Your task to perform on an android device: Add "duracell triple a" to the cart on walmart.com Image 0: 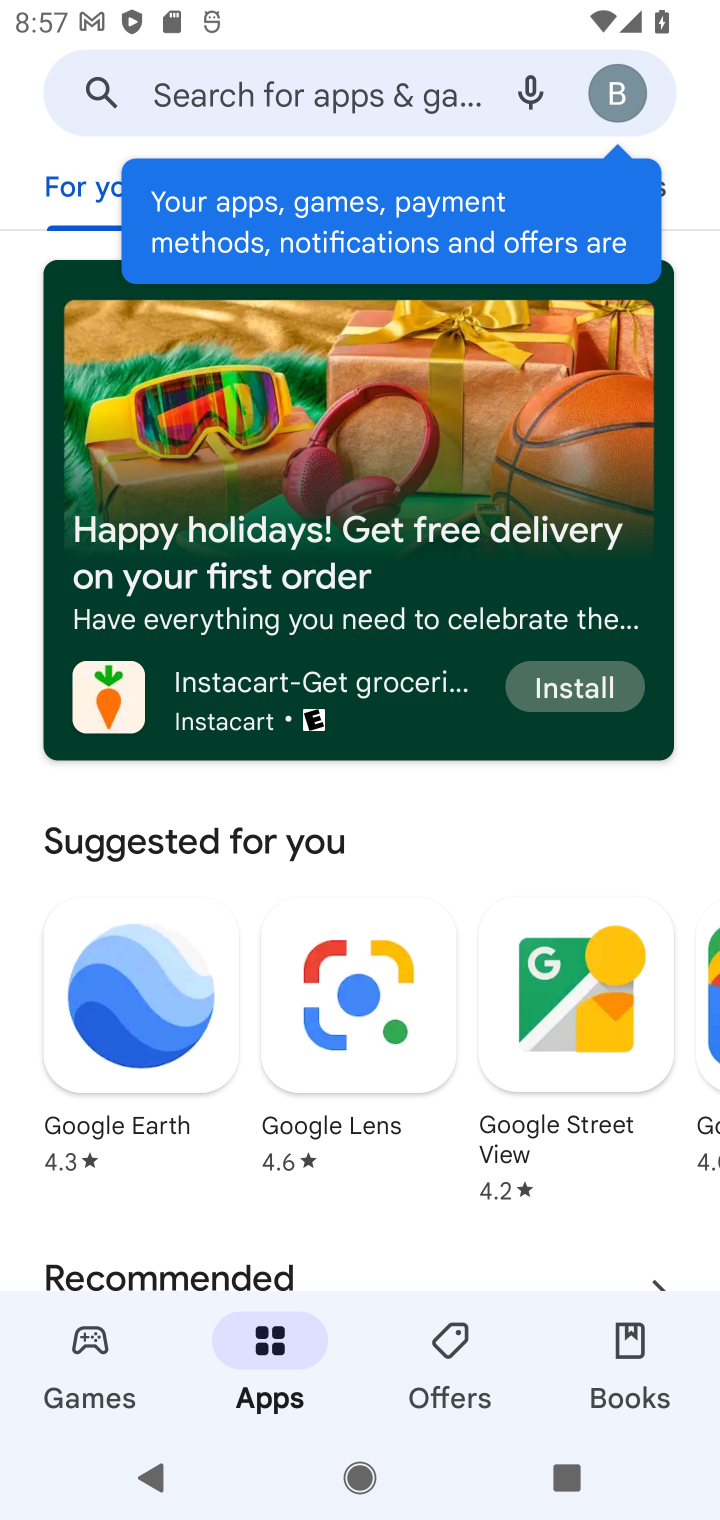
Step 0: press home button
Your task to perform on an android device: Add "duracell triple a" to the cart on walmart.com Image 1: 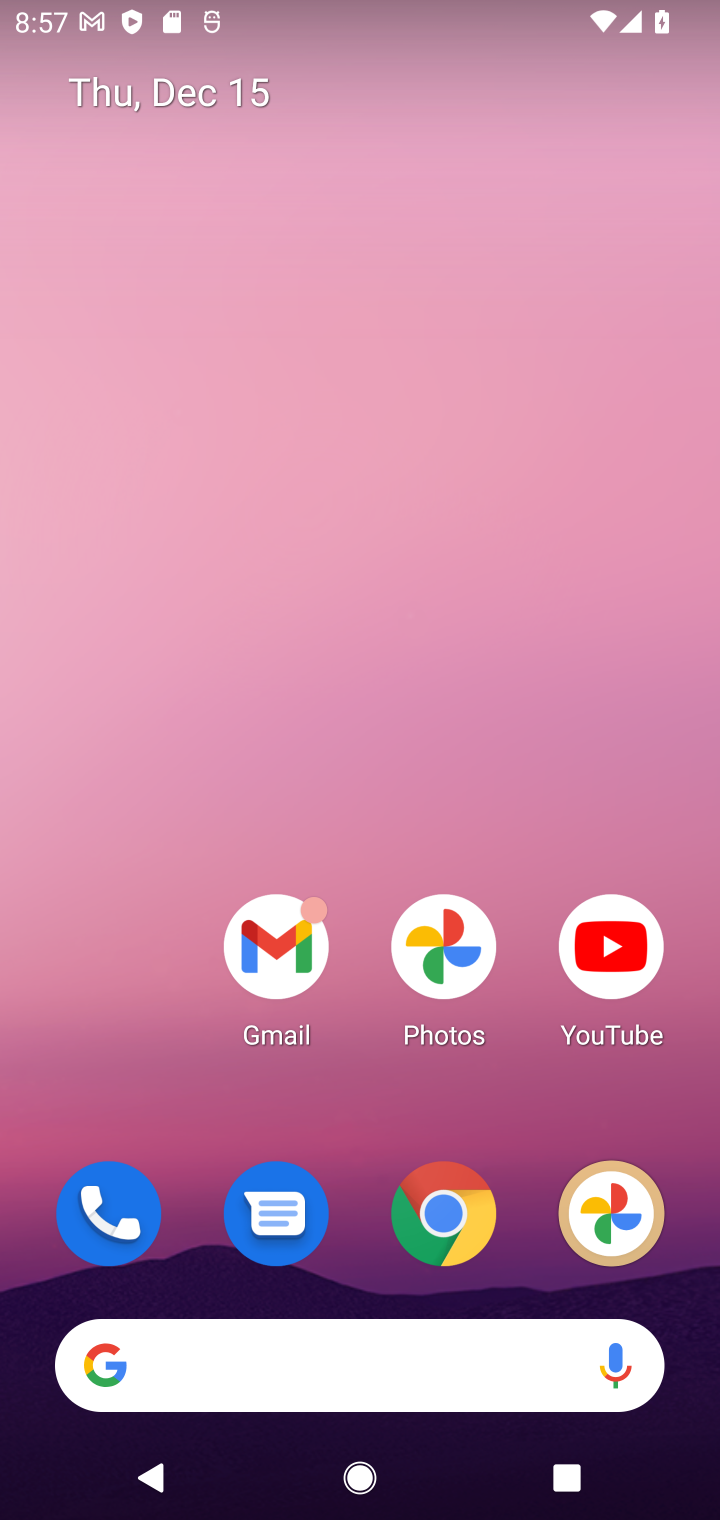
Step 1: drag from (342, 1339) to (441, 485)
Your task to perform on an android device: Add "duracell triple a" to the cart on walmart.com Image 2: 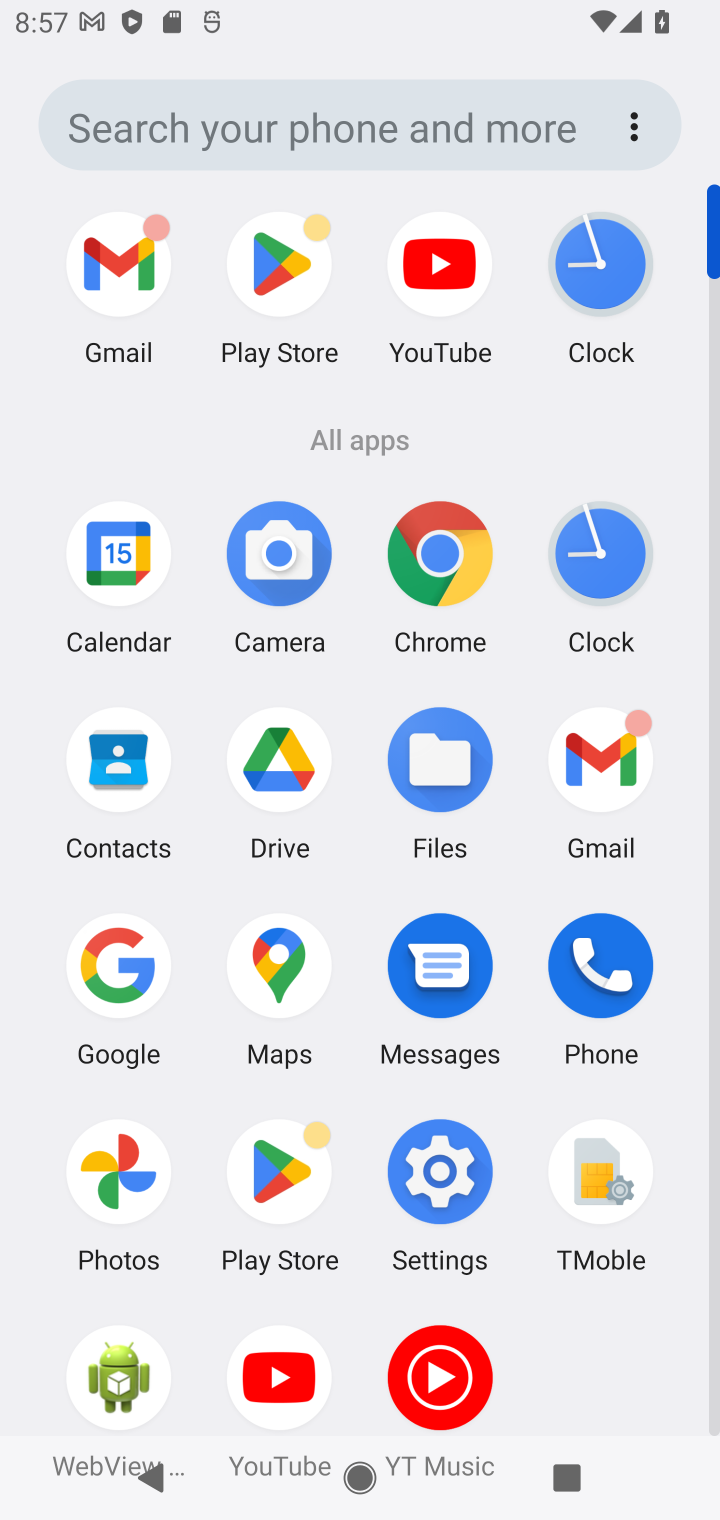
Step 2: click (114, 967)
Your task to perform on an android device: Add "duracell triple a" to the cart on walmart.com Image 3: 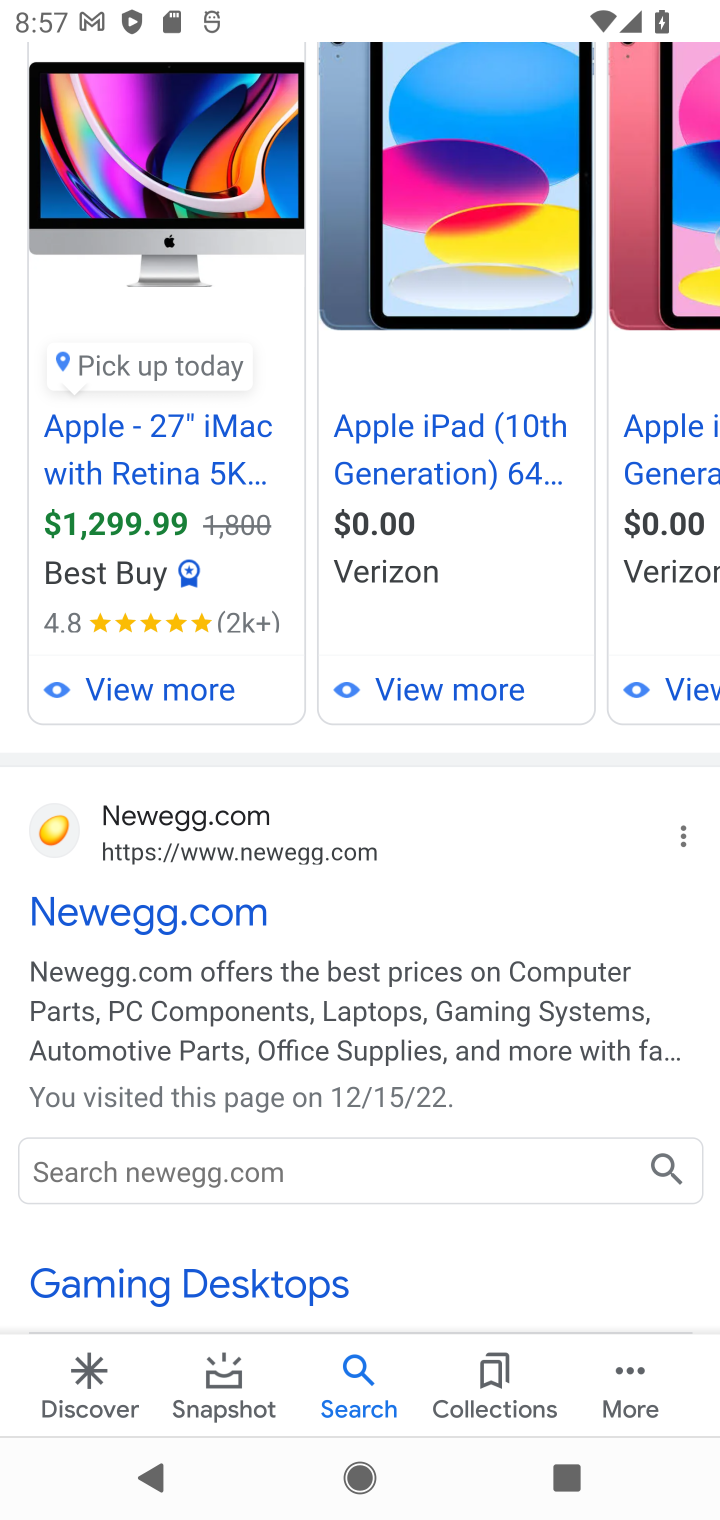
Step 3: drag from (315, 125) to (308, 1018)
Your task to perform on an android device: Add "duracell triple a" to the cart on walmart.com Image 4: 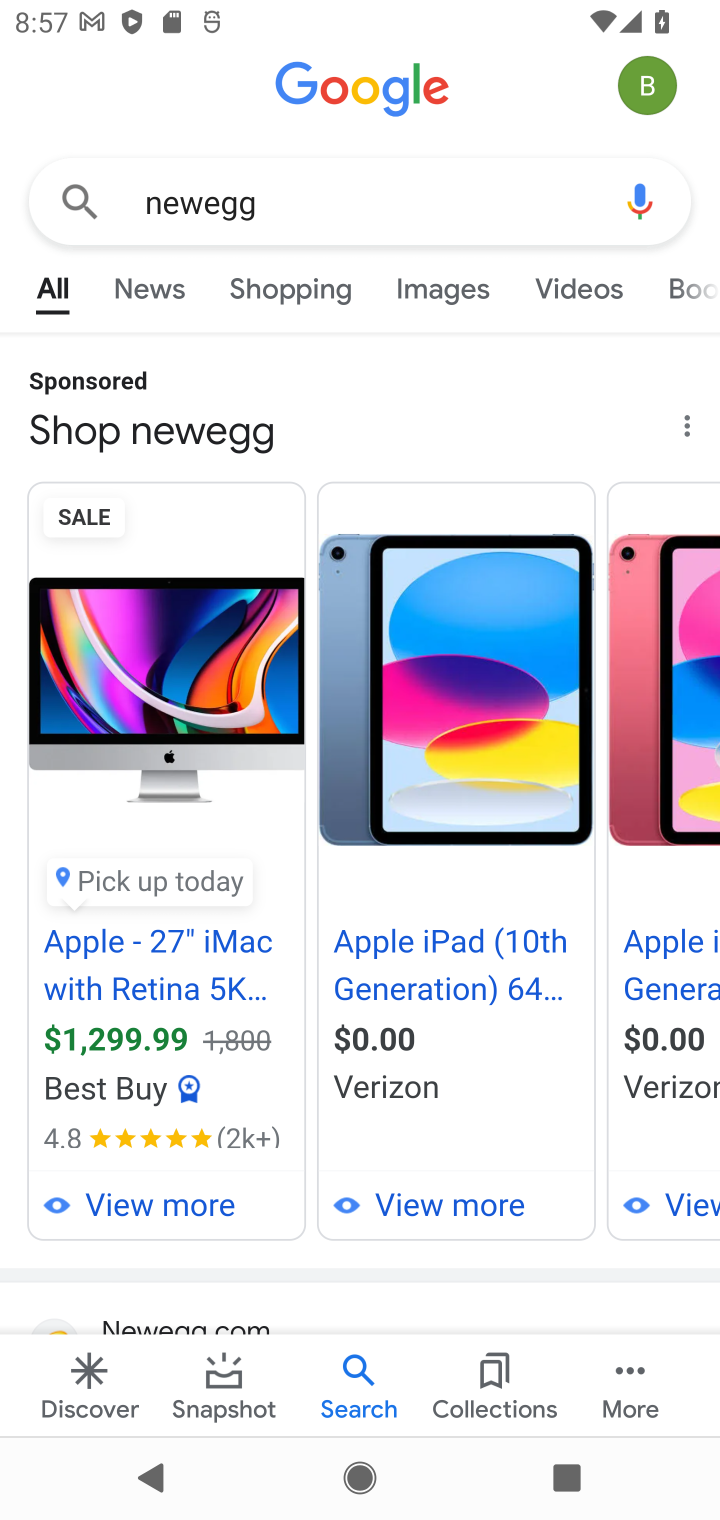
Step 4: click (207, 199)
Your task to perform on an android device: Add "duracell triple a" to the cart on walmart.com Image 5: 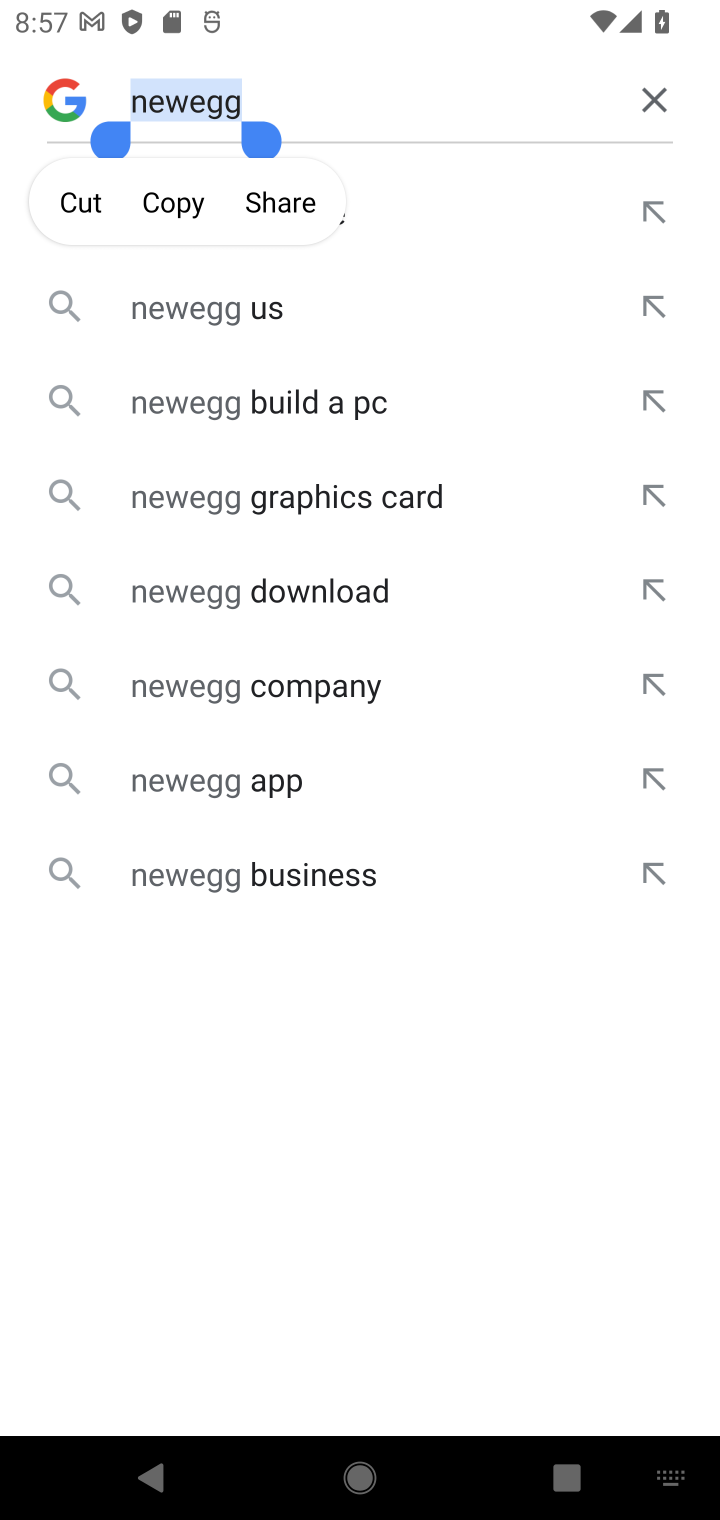
Step 5: click (649, 108)
Your task to perform on an android device: Add "duracell triple a" to the cart on walmart.com Image 6: 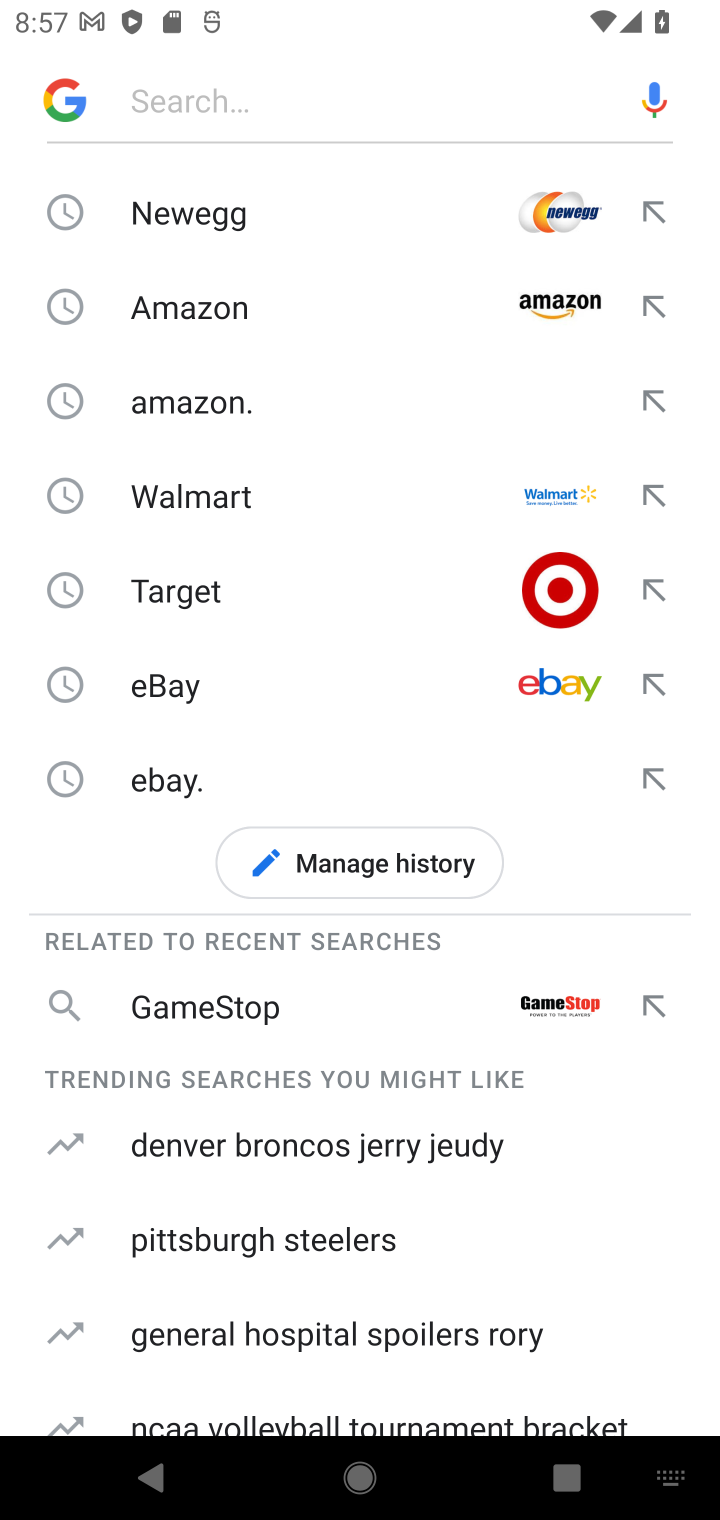
Step 6: click (215, 501)
Your task to perform on an android device: Add "duracell triple a" to the cart on walmart.com Image 7: 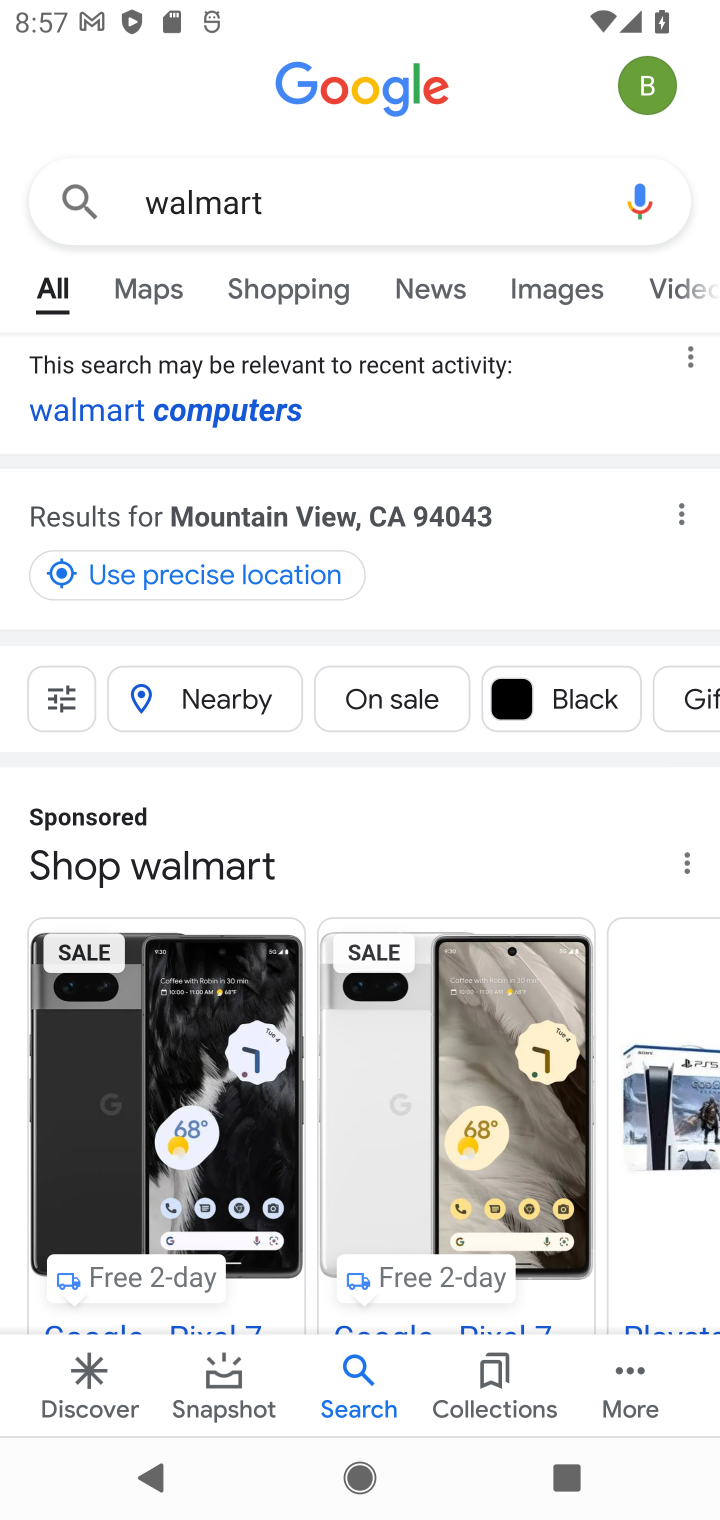
Step 7: drag from (394, 591) to (430, 265)
Your task to perform on an android device: Add "duracell triple a" to the cart on walmart.com Image 8: 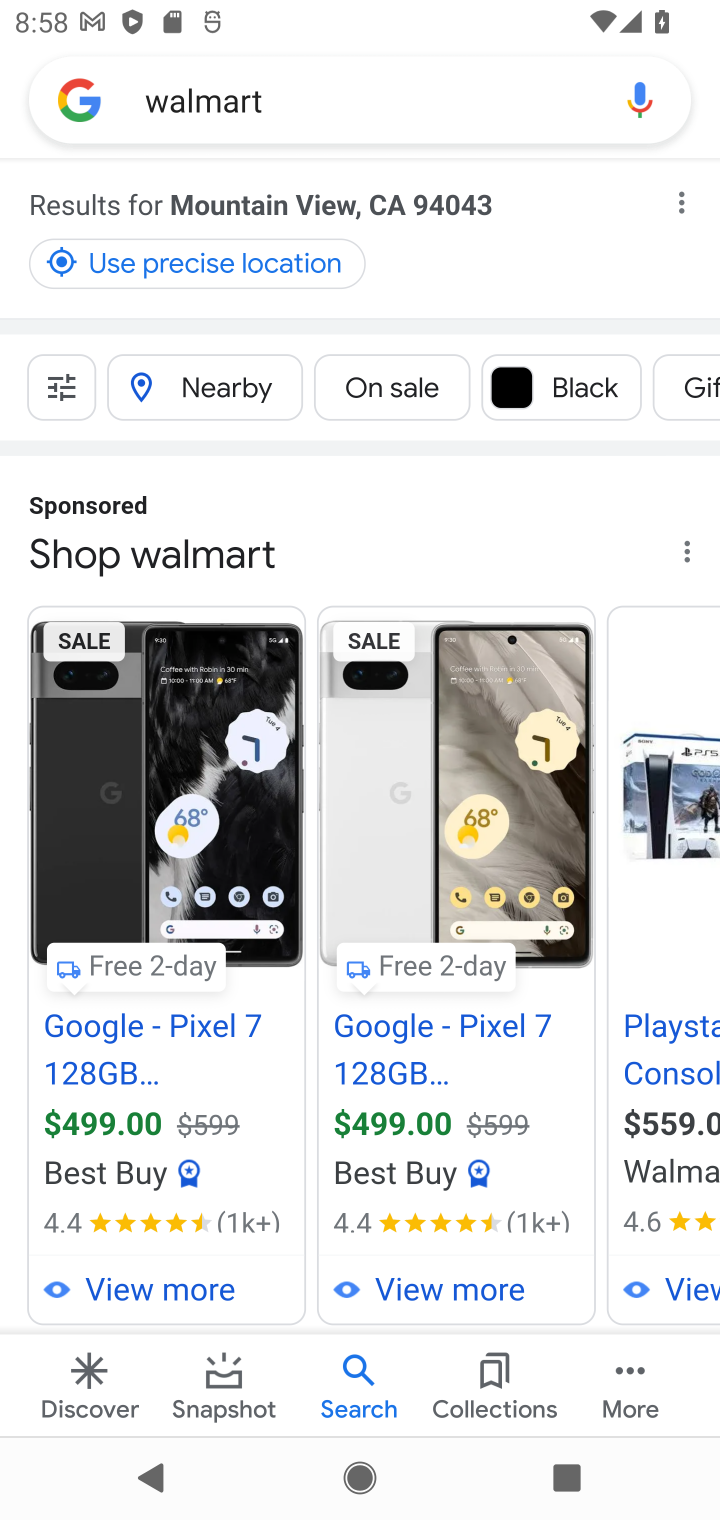
Step 8: drag from (319, 959) to (341, 413)
Your task to perform on an android device: Add "duracell triple a" to the cart on walmart.com Image 9: 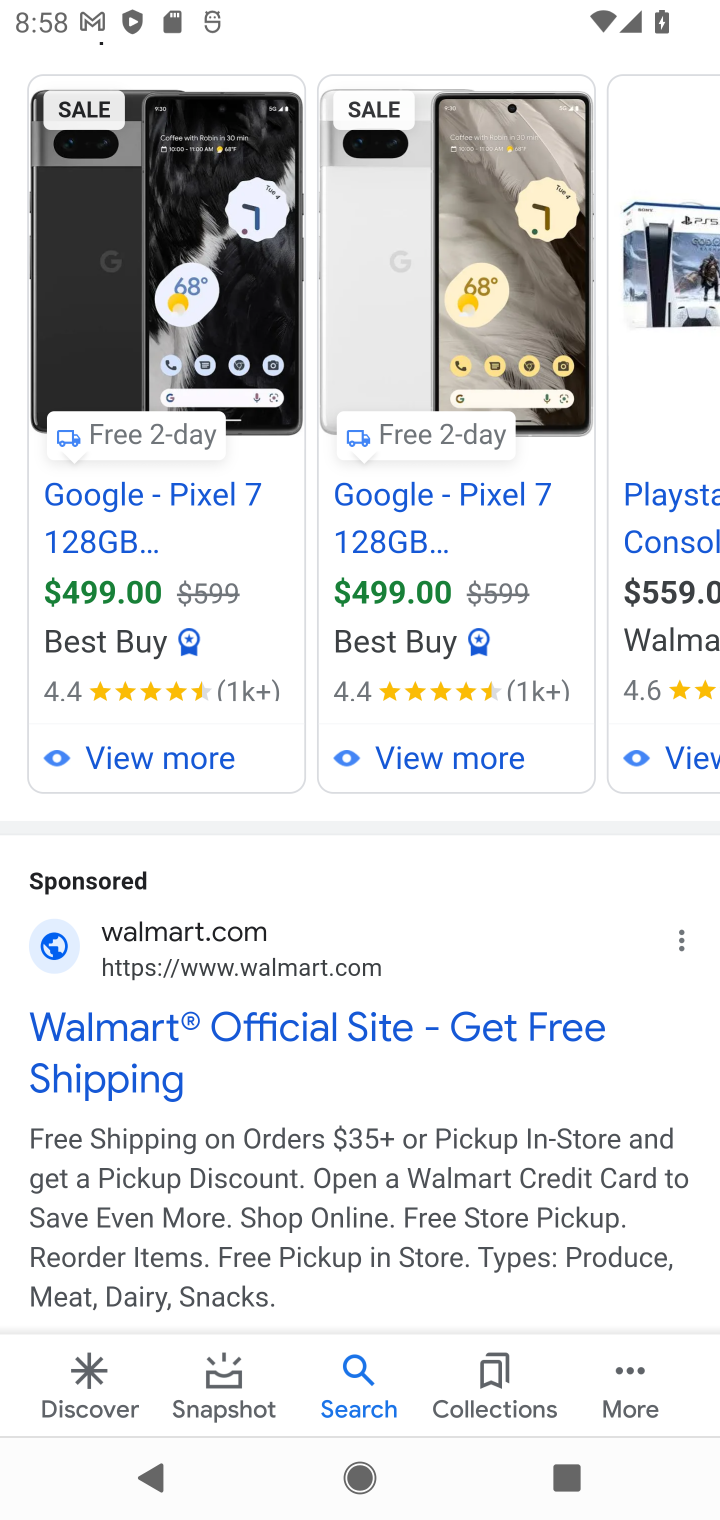
Step 9: click (166, 1051)
Your task to perform on an android device: Add "duracell triple a" to the cart on walmart.com Image 10: 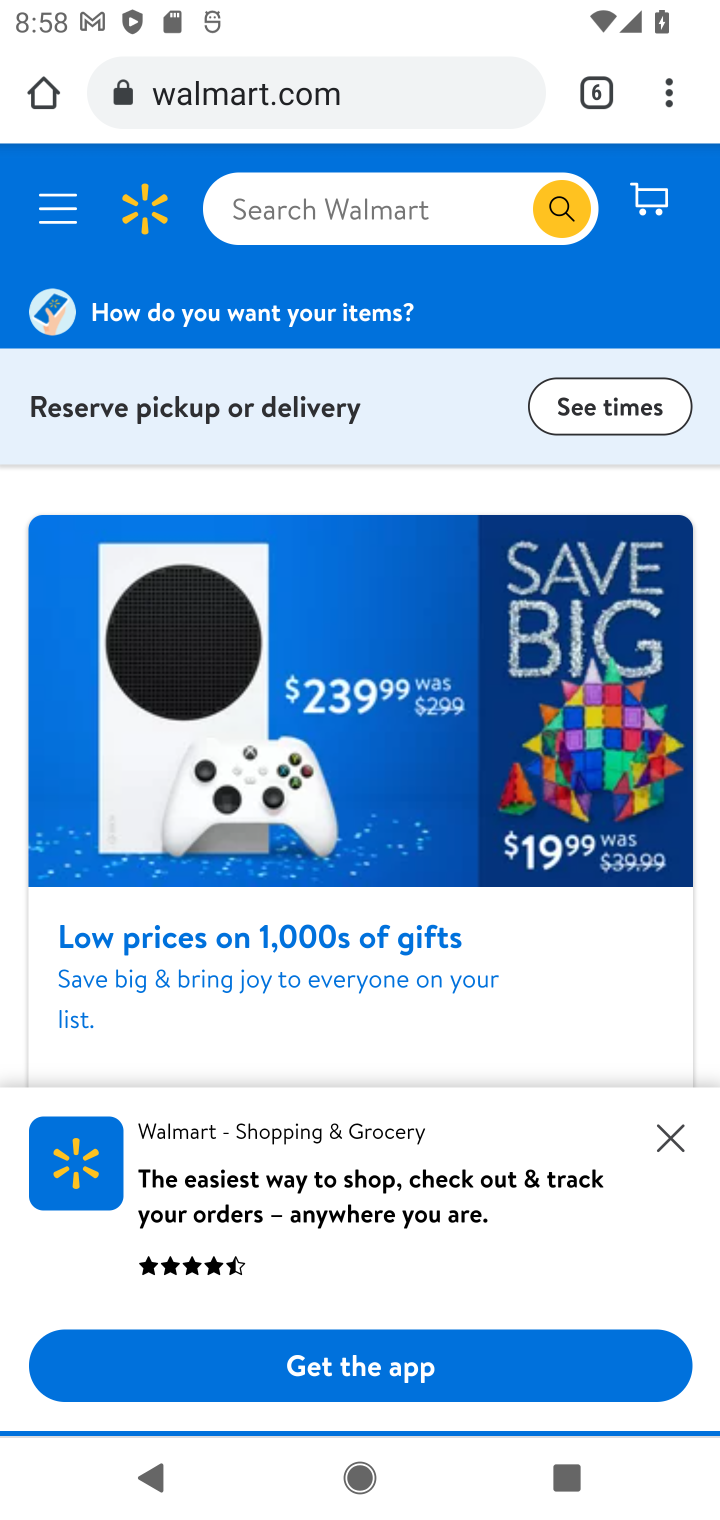
Step 10: click (334, 196)
Your task to perform on an android device: Add "duracell triple a" to the cart on walmart.com Image 11: 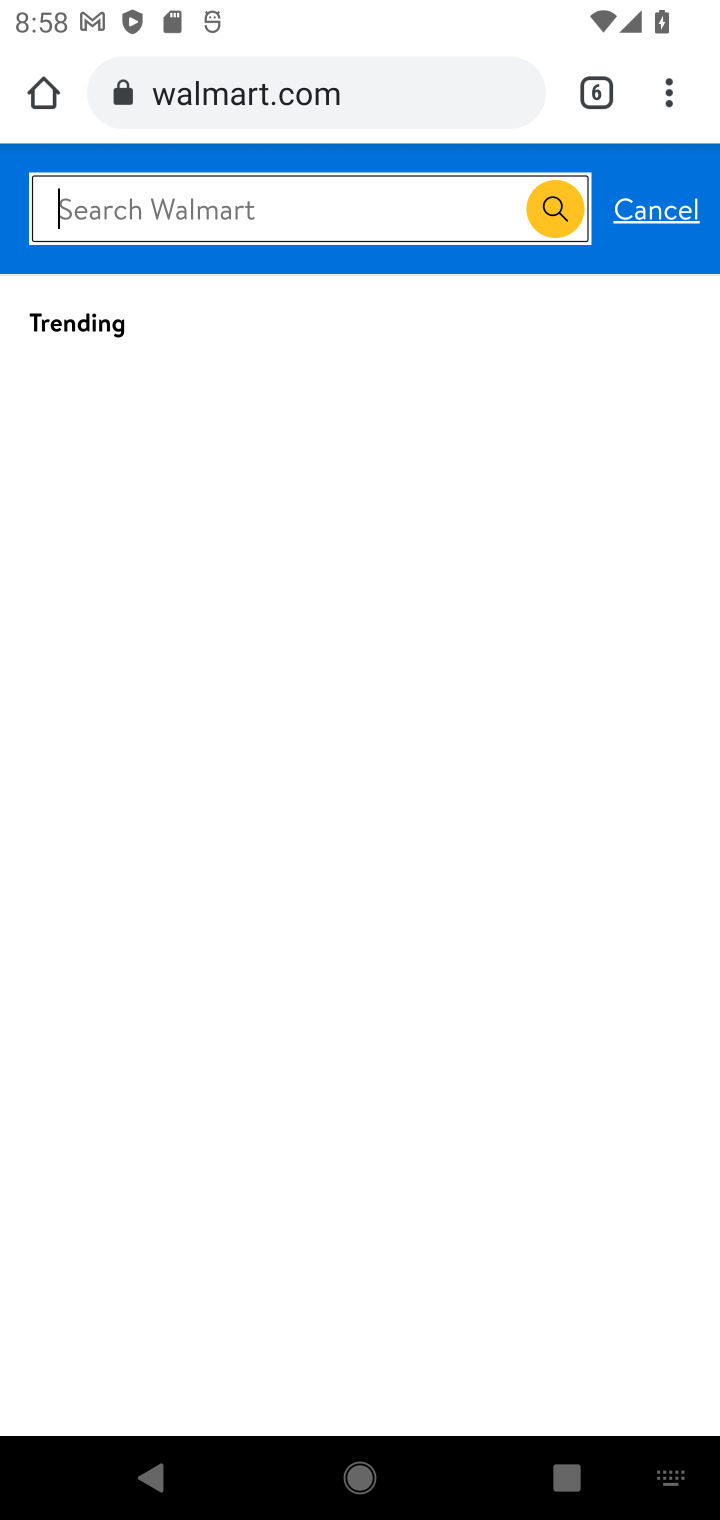
Step 11: click (661, 1144)
Your task to perform on an android device: Add "duracell triple a" to the cart on walmart.com Image 12: 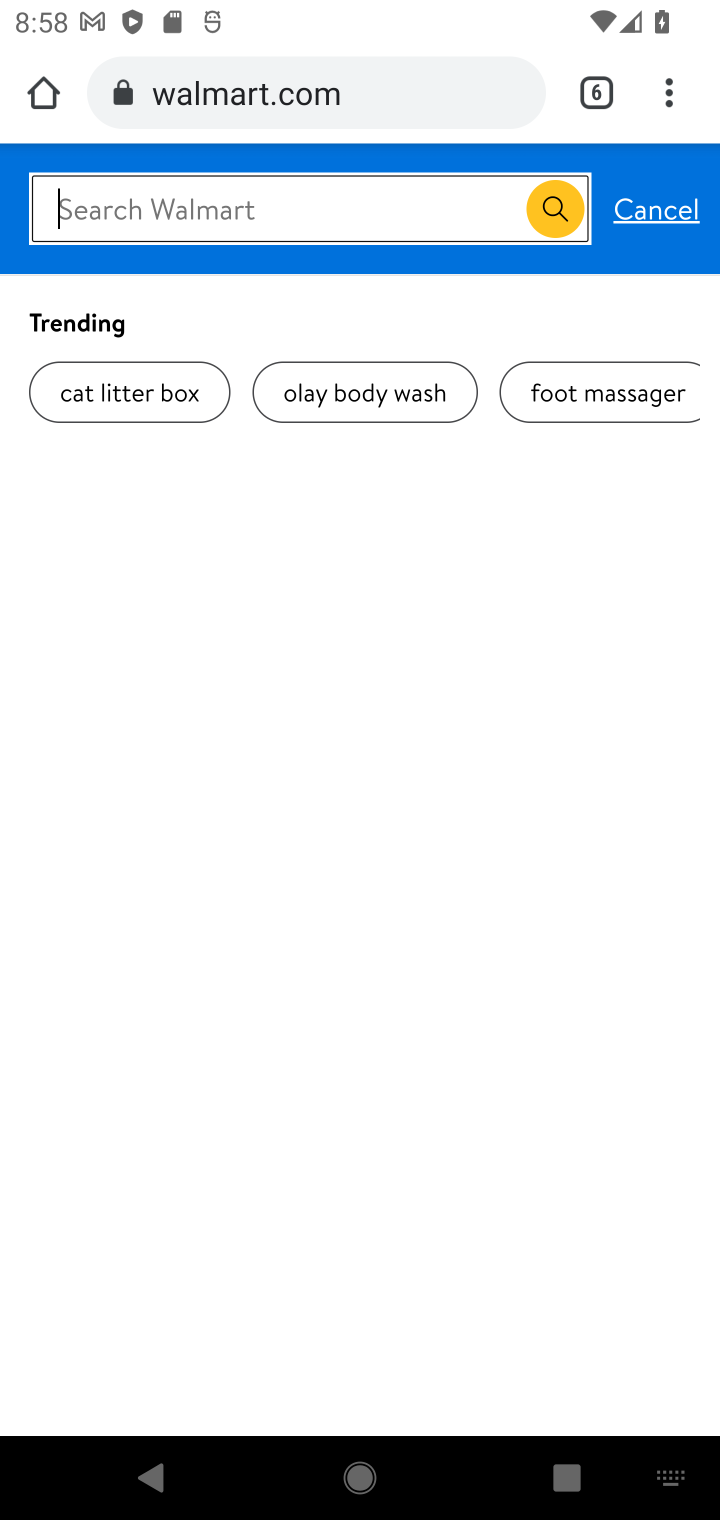
Step 12: type "duracell triple a"
Your task to perform on an android device: Add "duracell triple a" to the cart on walmart.com Image 13: 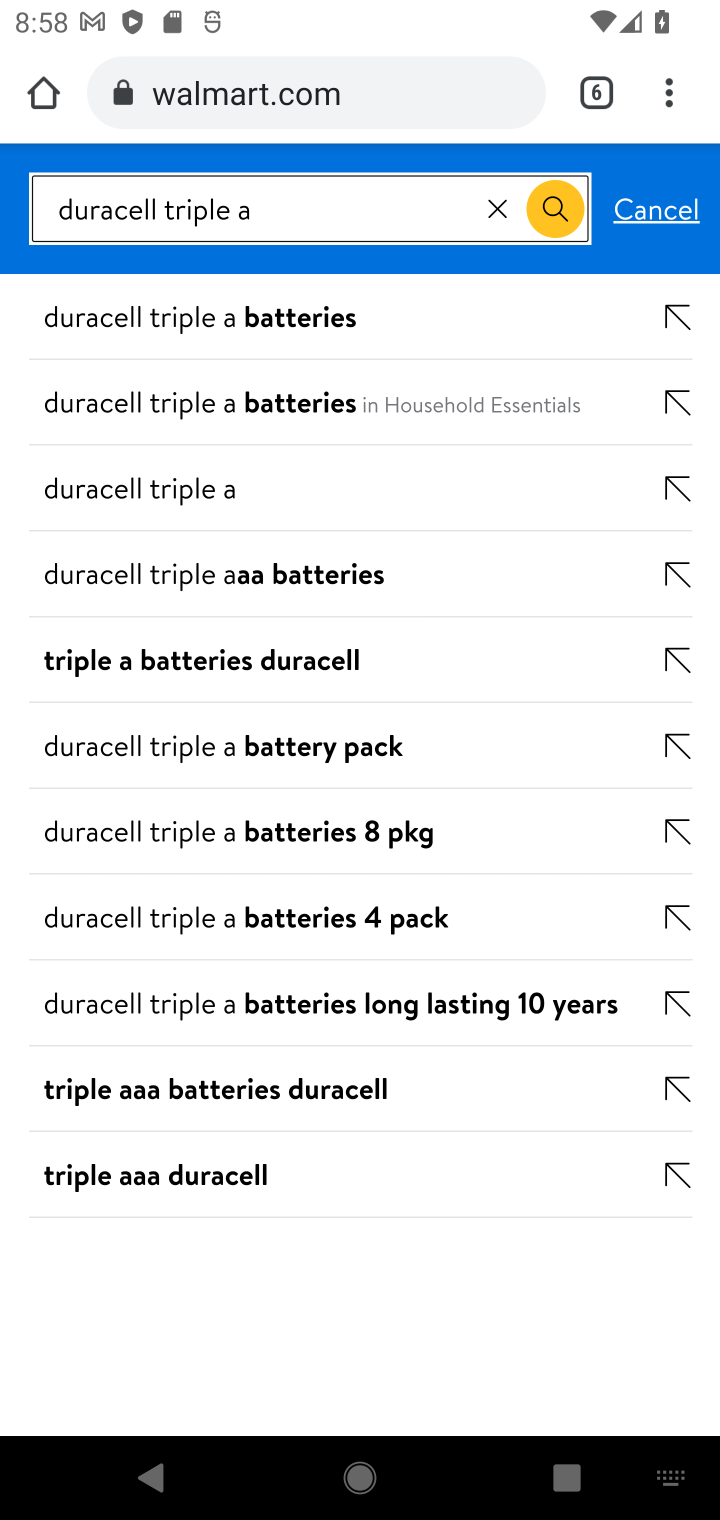
Step 13: click (175, 498)
Your task to perform on an android device: Add "duracell triple a" to the cart on walmart.com Image 14: 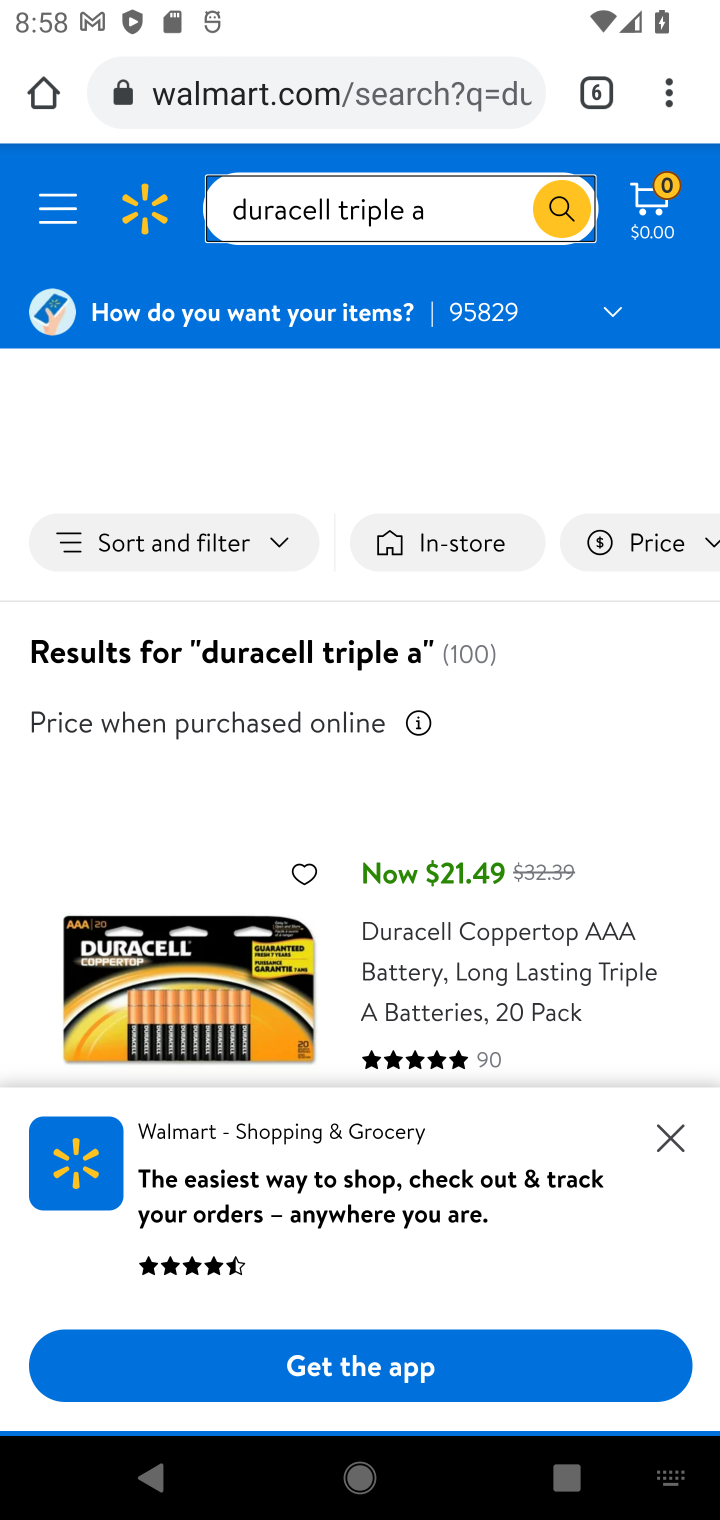
Step 14: drag from (544, 968) to (556, 347)
Your task to perform on an android device: Add "duracell triple a" to the cart on walmart.com Image 15: 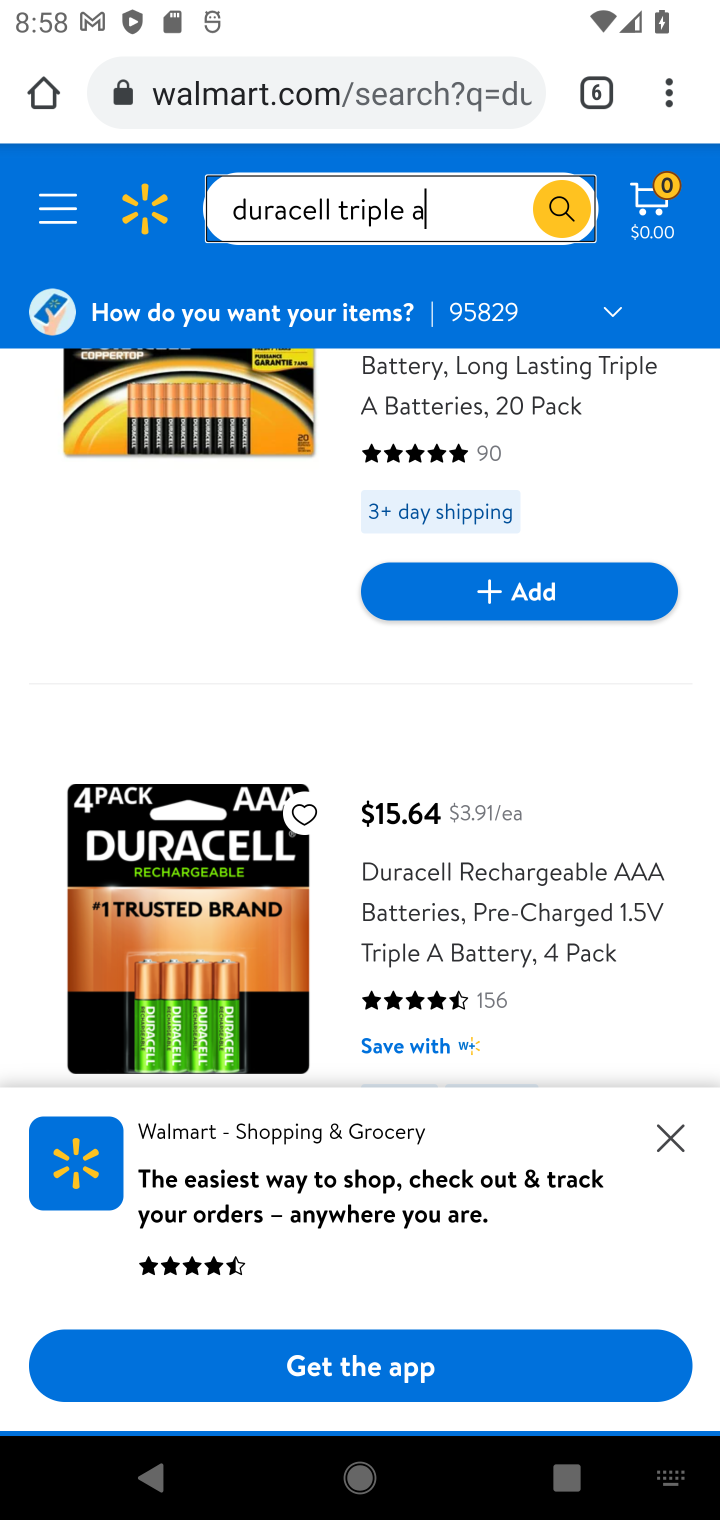
Step 15: click (510, 597)
Your task to perform on an android device: Add "duracell triple a" to the cart on walmart.com Image 16: 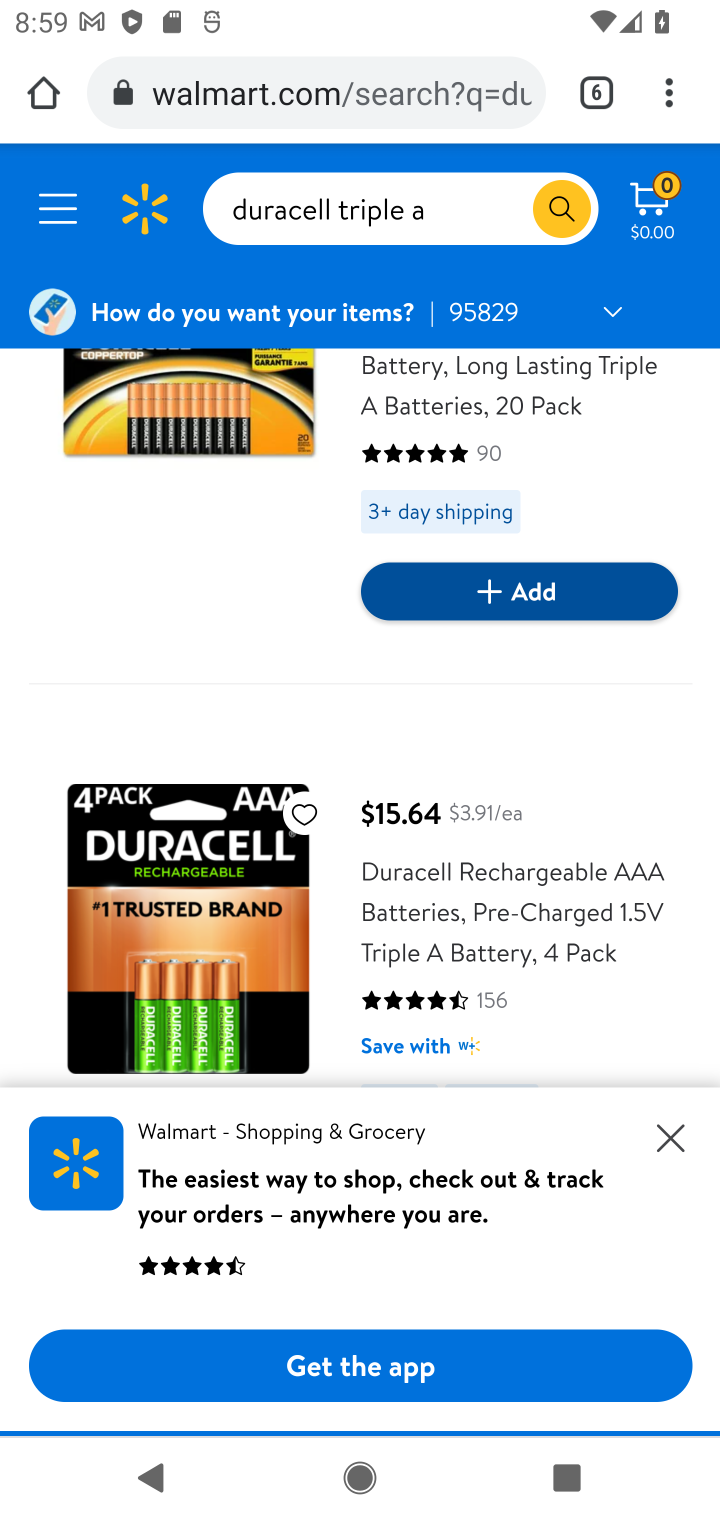
Step 16: click (543, 591)
Your task to perform on an android device: Add "duracell triple a" to the cart on walmart.com Image 17: 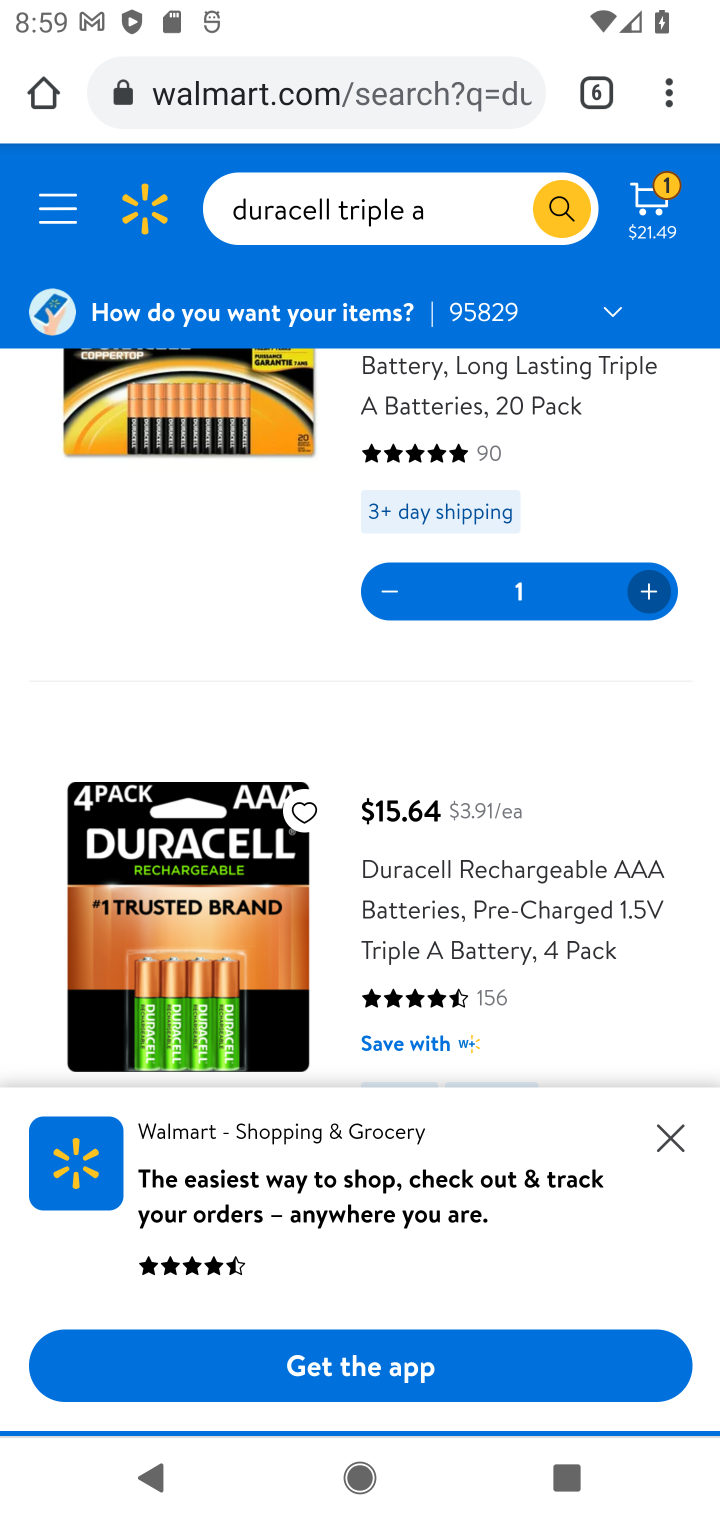
Step 17: click (561, 594)
Your task to perform on an android device: Add "duracell triple a" to the cart on walmart.com Image 18: 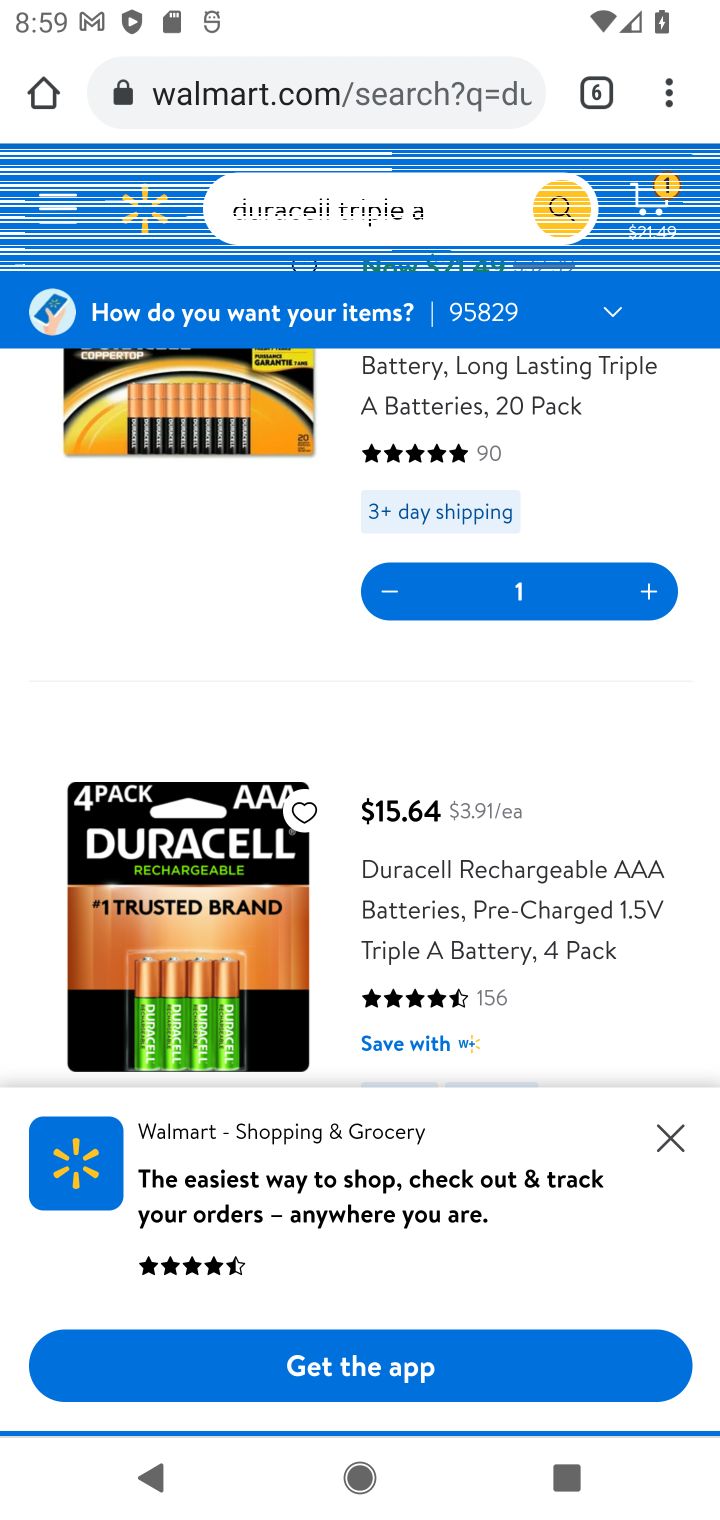
Step 18: task complete